Your task to perform on an android device: turn on wifi Image 0: 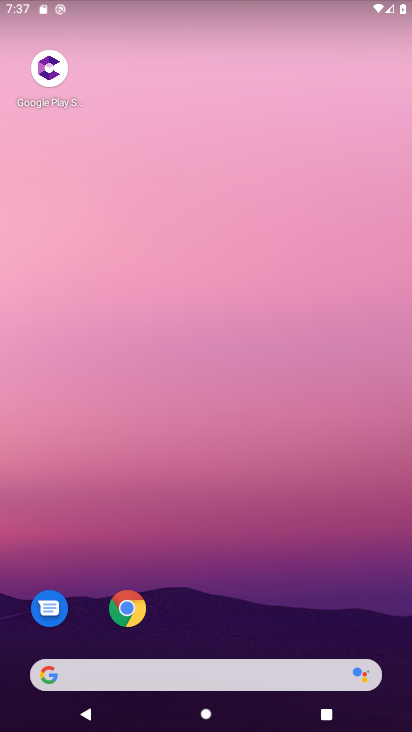
Step 0: drag from (243, 593) to (244, 0)
Your task to perform on an android device: turn on wifi Image 1: 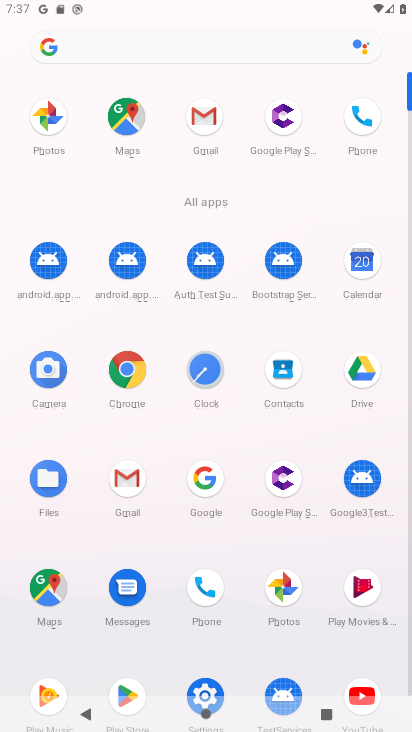
Step 1: drag from (229, 632) to (271, 327)
Your task to perform on an android device: turn on wifi Image 2: 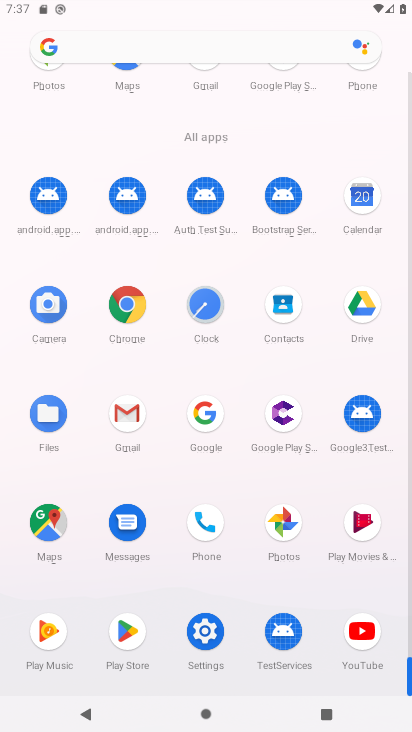
Step 2: click (195, 600)
Your task to perform on an android device: turn on wifi Image 3: 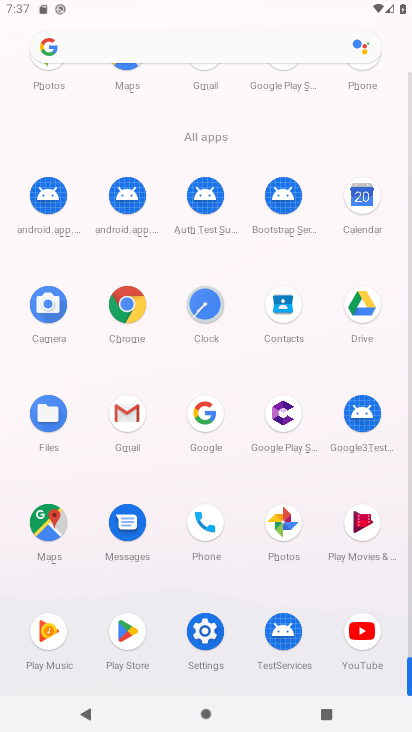
Step 3: click (207, 628)
Your task to perform on an android device: turn on wifi Image 4: 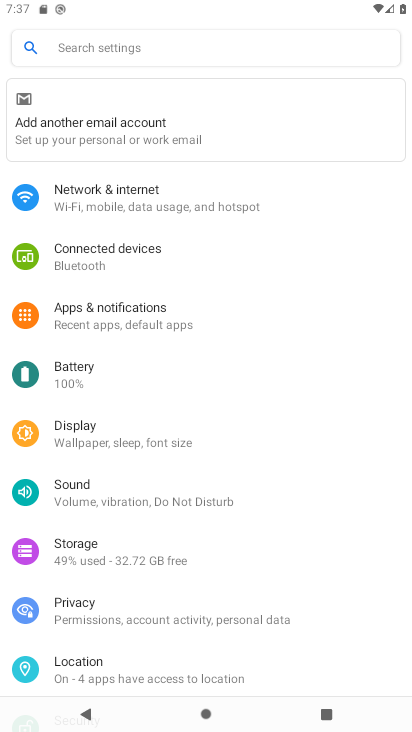
Step 4: click (93, 201)
Your task to perform on an android device: turn on wifi Image 5: 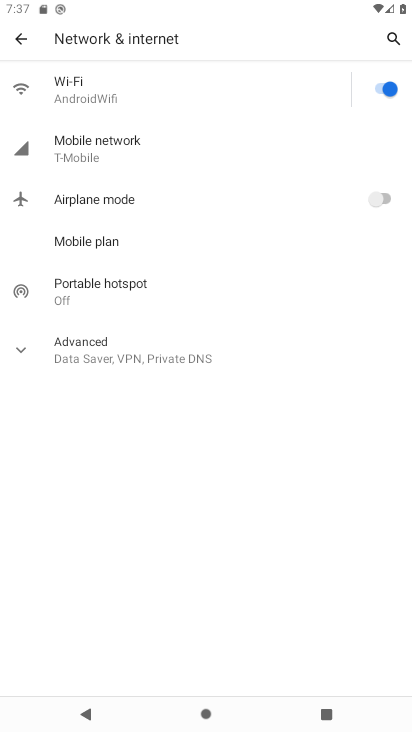
Step 5: click (107, 96)
Your task to perform on an android device: turn on wifi Image 6: 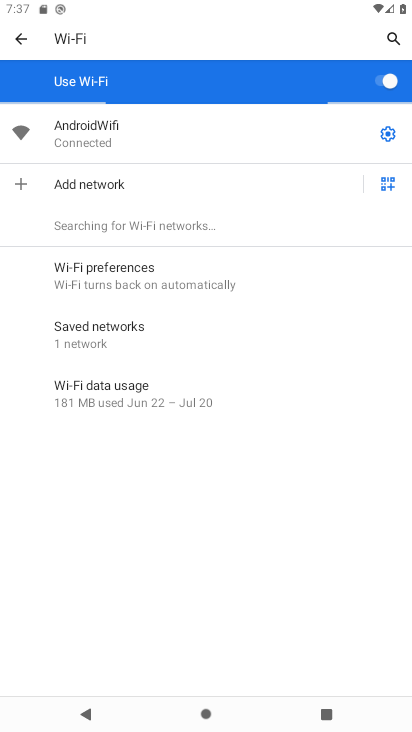
Step 6: task complete